Your task to perform on an android device: Go to Yahoo.com Image 0: 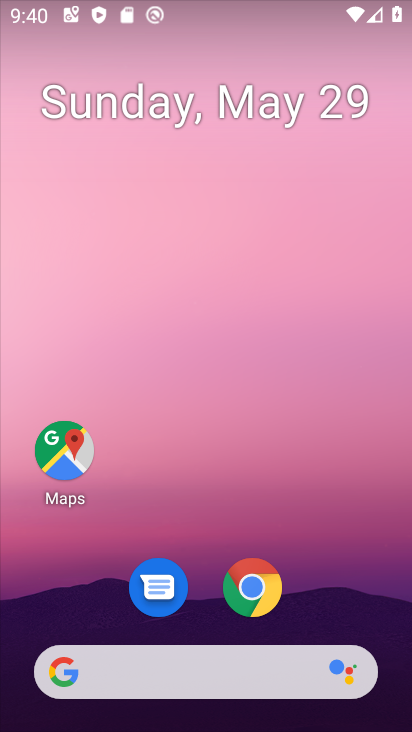
Step 0: click (261, 594)
Your task to perform on an android device: Go to Yahoo.com Image 1: 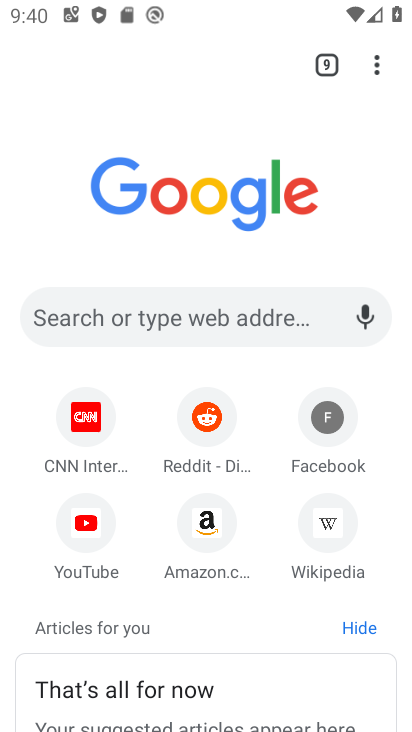
Step 1: click (135, 303)
Your task to perform on an android device: Go to Yahoo.com Image 2: 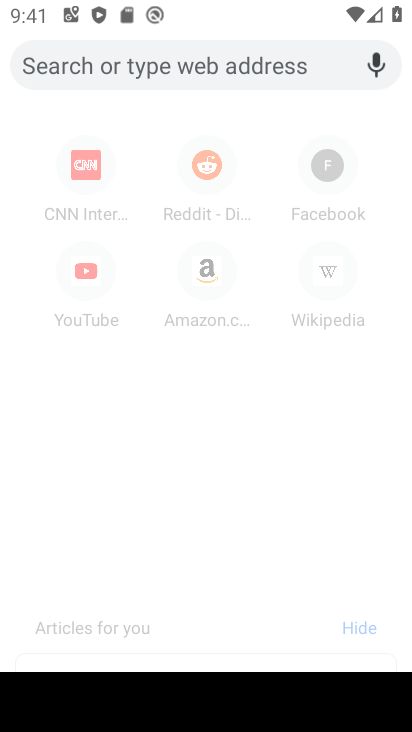
Step 2: type "yahoo."
Your task to perform on an android device: Go to Yahoo.com Image 3: 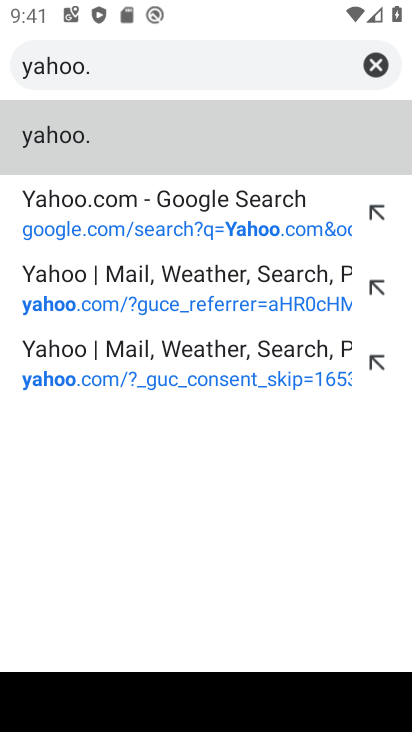
Step 3: click (85, 135)
Your task to perform on an android device: Go to Yahoo.com Image 4: 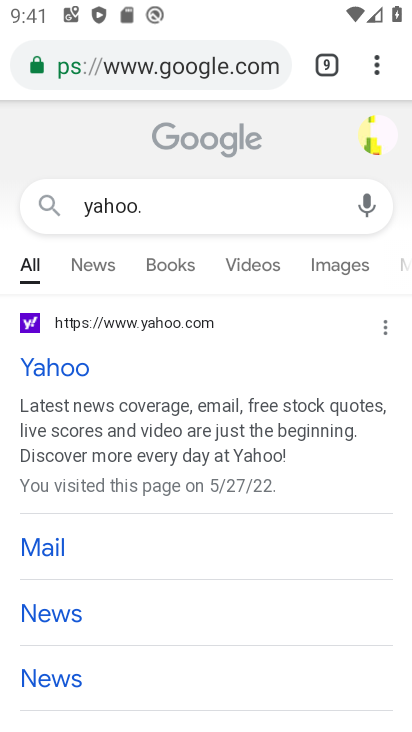
Step 4: task complete